Your task to perform on an android device: What's the weather today? Image 0: 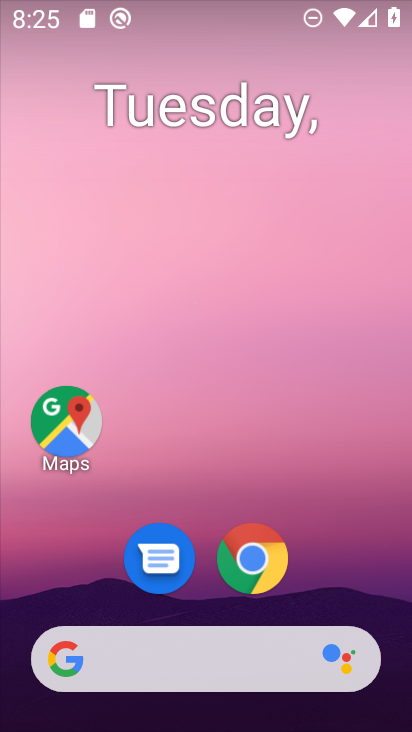
Step 0: drag from (198, 605) to (239, 163)
Your task to perform on an android device: What's the weather today? Image 1: 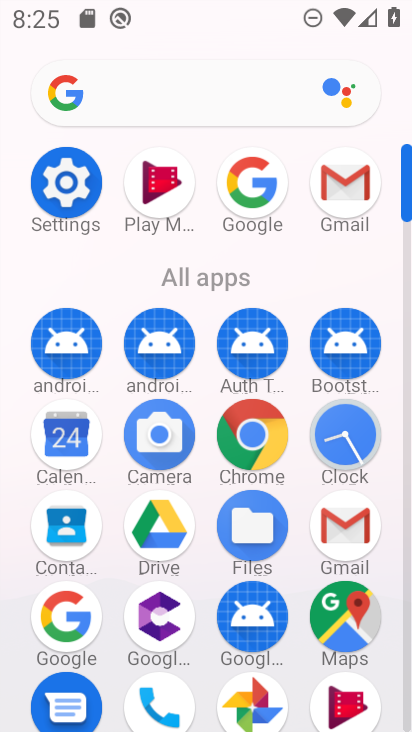
Step 1: click (67, 615)
Your task to perform on an android device: What's the weather today? Image 2: 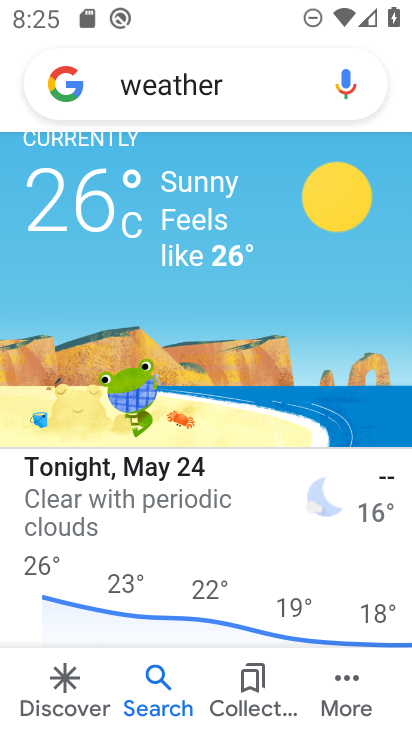
Step 2: click (244, 90)
Your task to perform on an android device: What's the weather today? Image 3: 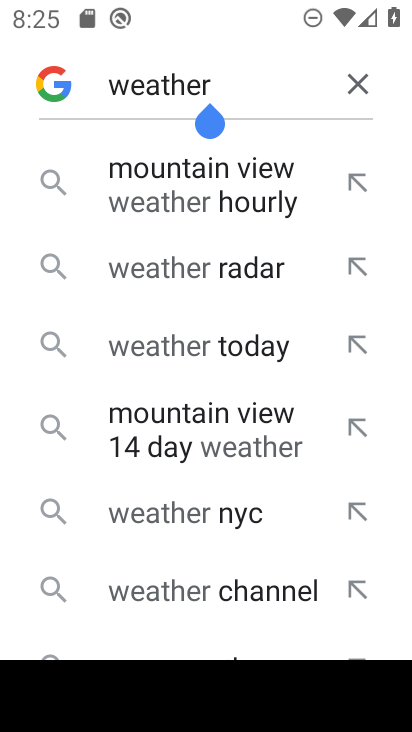
Step 3: click (358, 88)
Your task to perform on an android device: What's the weather today? Image 4: 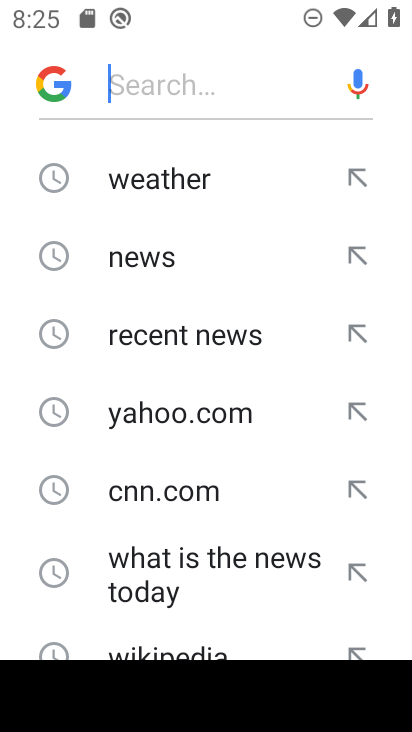
Step 4: click (158, 179)
Your task to perform on an android device: What's the weather today? Image 5: 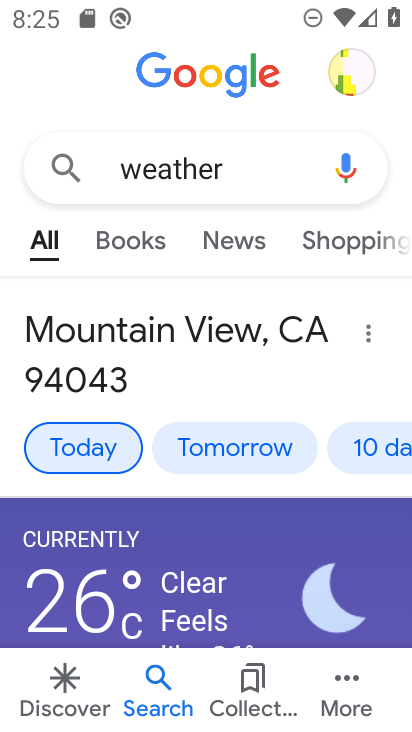
Step 5: task complete